Your task to perform on an android device: Do I have any events today? Image 0: 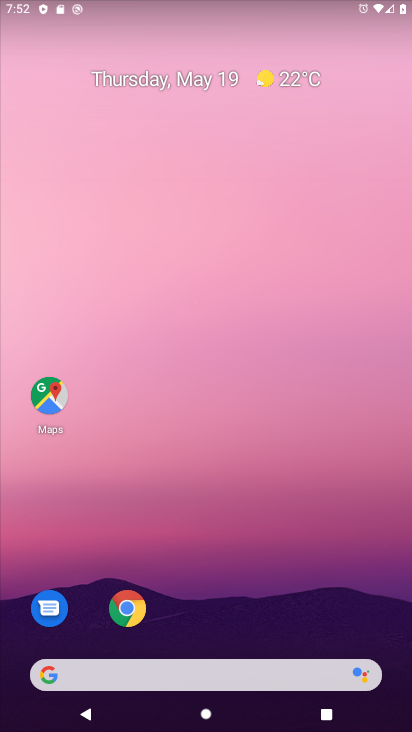
Step 0: click (406, 641)
Your task to perform on an android device: Do I have any events today? Image 1: 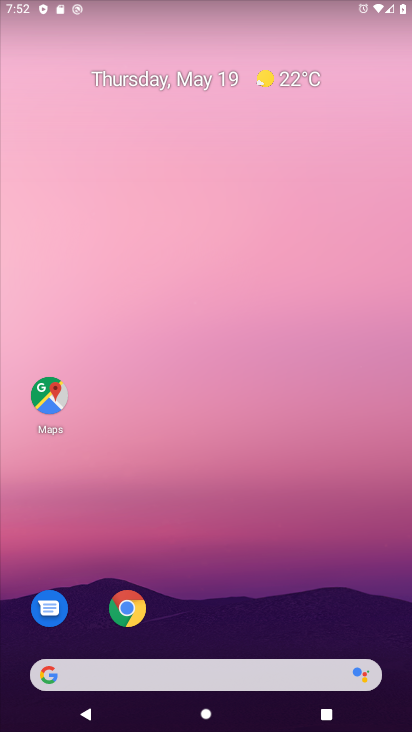
Step 1: drag from (267, 677) to (227, 91)
Your task to perform on an android device: Do I have any events today? Image 2: 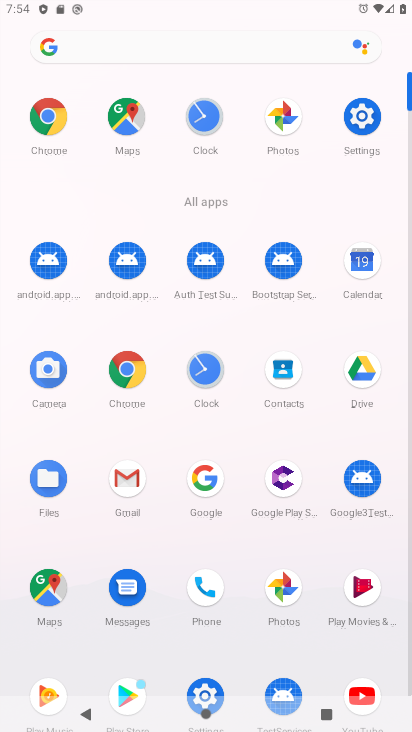
Step 2: click (360, 258)
Your task to perform on an android device: Do I have any events today? Image 3: 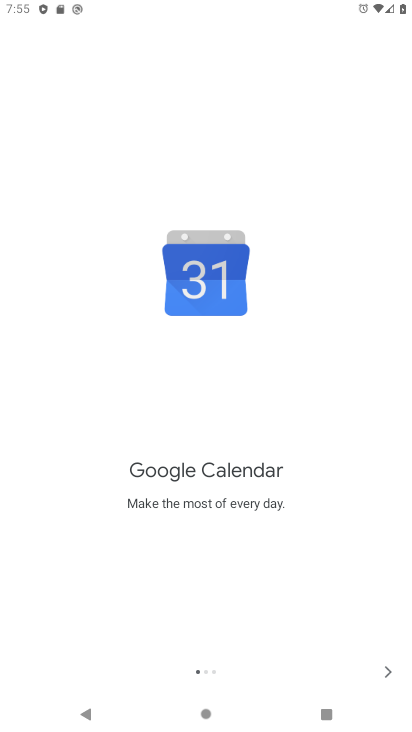
Step 3: click (383, 670)
Your task to perform on an android device: Do I have any events today? Image 4: 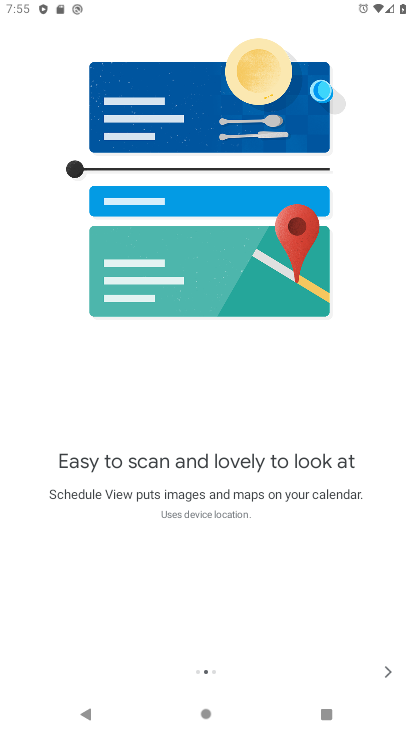
Step 4: click (383, 670)
Your task to perform on an android device: Do I have any events today? Image 5: 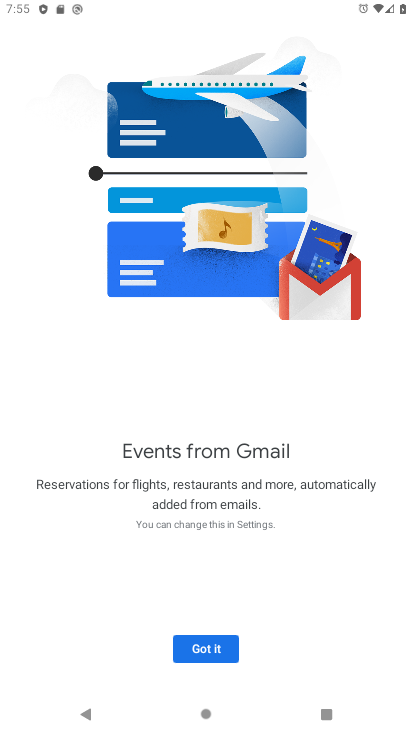
Step 5: click (202, 648)
Your task to perform on an android device: Do I have any events today? Image 6: 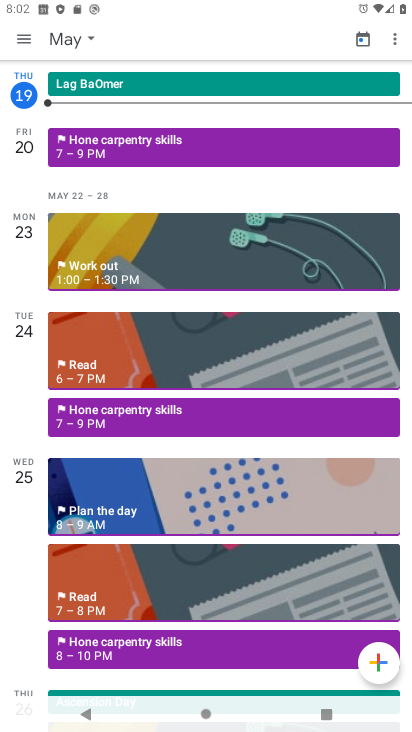
Step 6: task complete